Your task to perform on an android device: Open Chrome and go to settings Image 0: 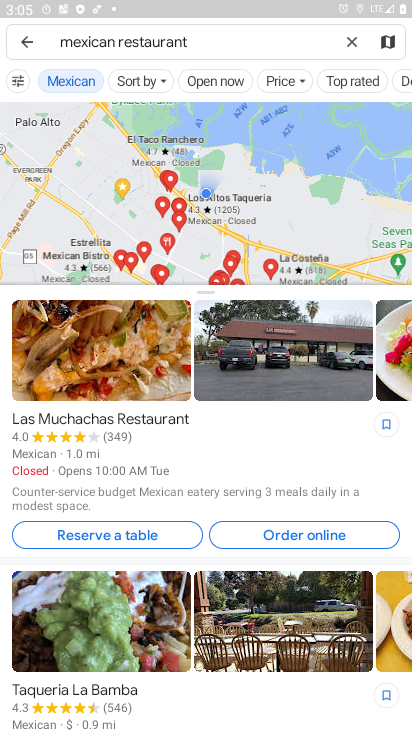
Step 0: press home button
Your task to perform on an android device: Open Chrome and go to settings Image 1: 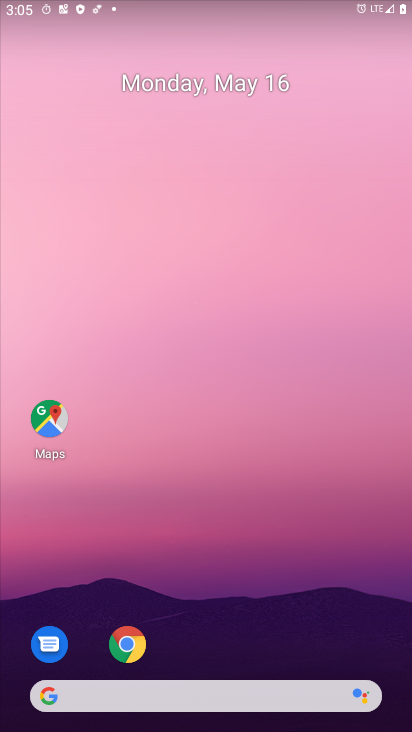
Step 1: drag from (254, 600) to (258, 200)
Your task to perform on an android device: Open Chrome and go to settings Image 2: 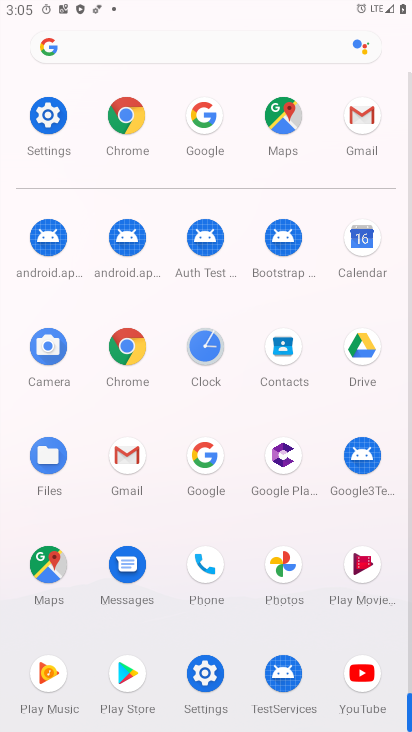
Step 2: click (138, 359)
Your task to perform on an android device: Open Chrome and go to settings Image 3: 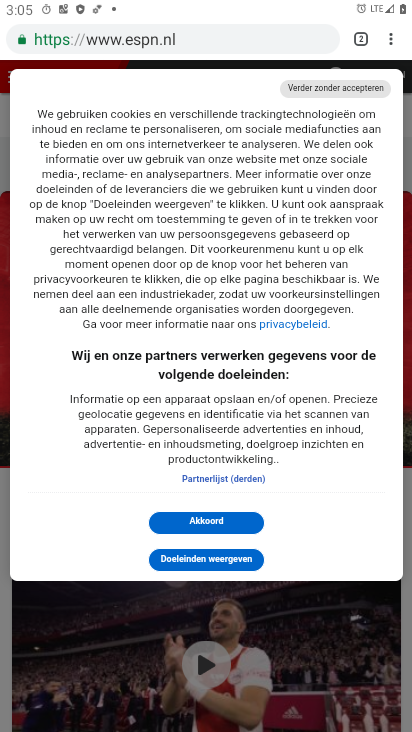
Step 3: click (394, 34)
Your task to perform on an android device: Open Chrome and go to settings Image 4: 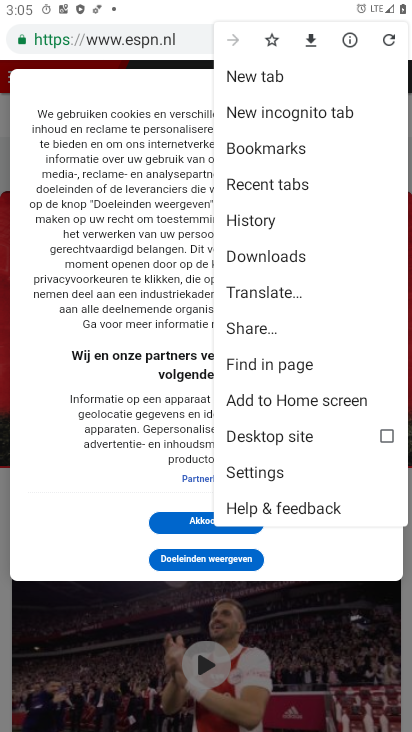
Step 4: drag from (266, 429) to (280, 147)
Your task to perform on an android device: Open Chrome and go to settings Image 5: 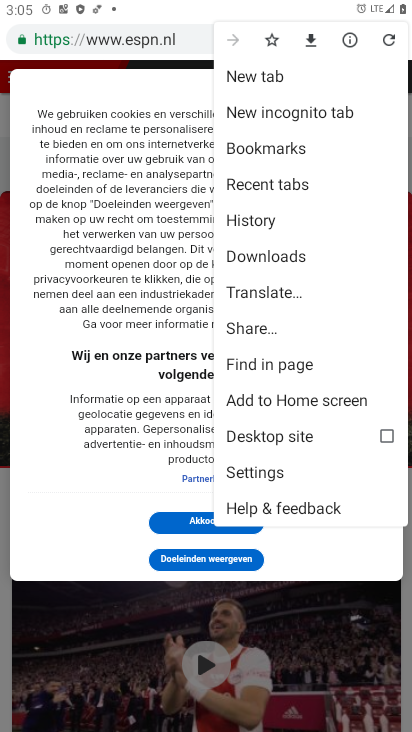
Step 5: click (279, 472)
Your task to perform on an android device: Open Chrome and go to settings Image 6: 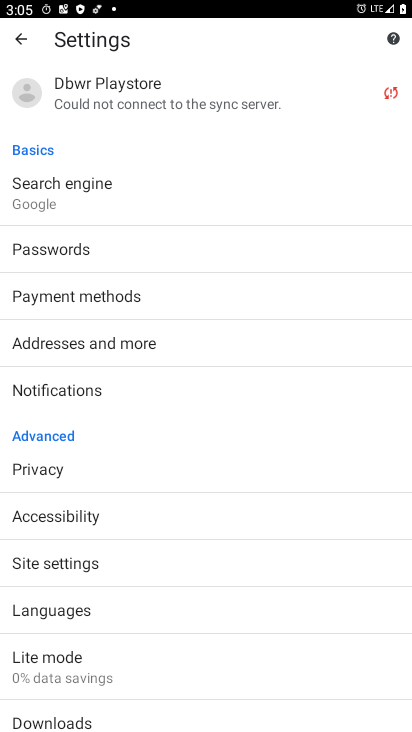
Step 6: task complete